Your task to perform on an android device: toggle priority inbox in the gmail app Image 0: 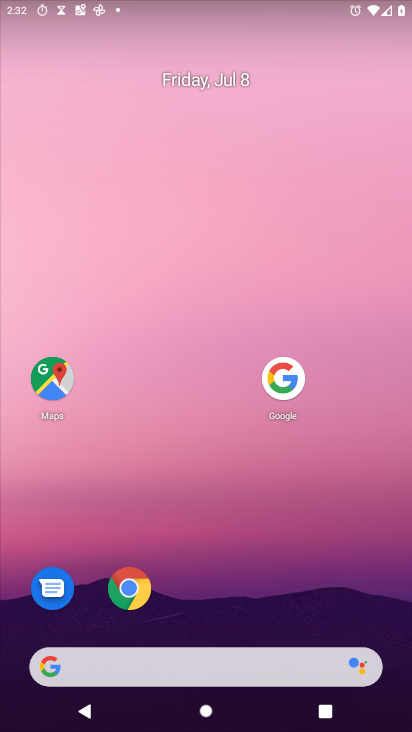
Step 0: drag from (209, 656) to (299, 139)
Your task to perform on an android device: toggle priority inbox in the gmail app Image 1: 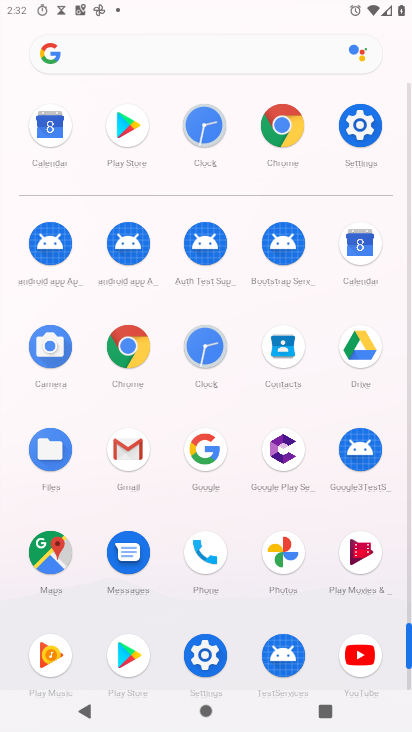
Step 1: click (125, 457)
Your task to perform on an android device: toggle priority inbox in the gmail app Image 2: 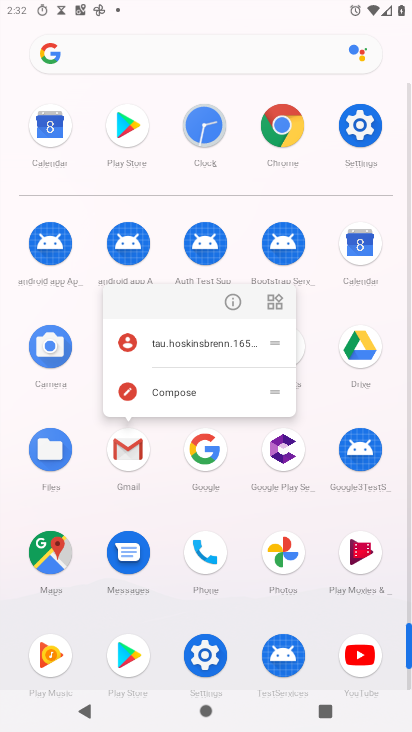
Step 2: click (116, 455)
Your task to perform on an android device: toggle priority inbox in the gmail app Image 3: 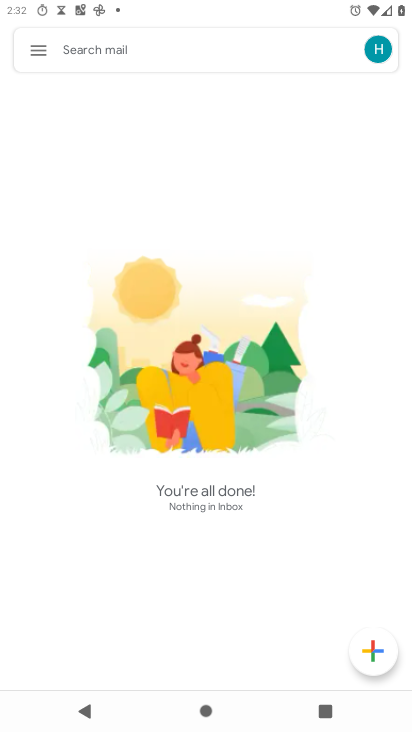
Step 3: click (40, 49)
Your task to perform on an android device: toggle priority inbox in the gmail app Image 4: 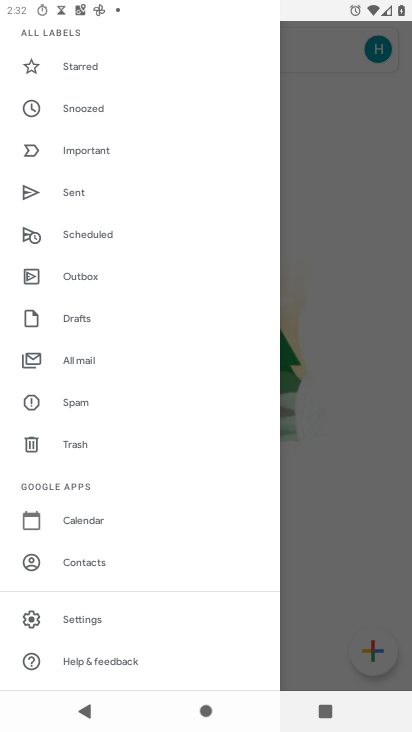
Step 4: click (92, 620)
Your task to perform on an android device: toggle priority inbox in the gmail app Image 5: 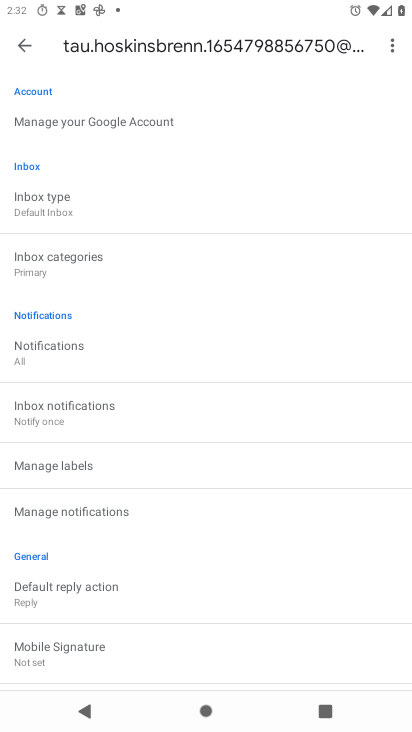
Step 5: click (47, 202)
Your task to perform on an android device: toggle priority inbox in the gmail app Image 6: 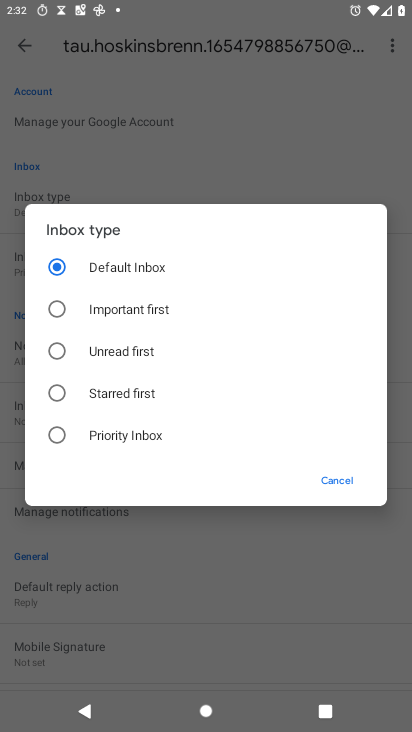
Step 6: click (57, 434)
Your task to perform on an android device: toggle priority inbox in the gmail app Image 7: 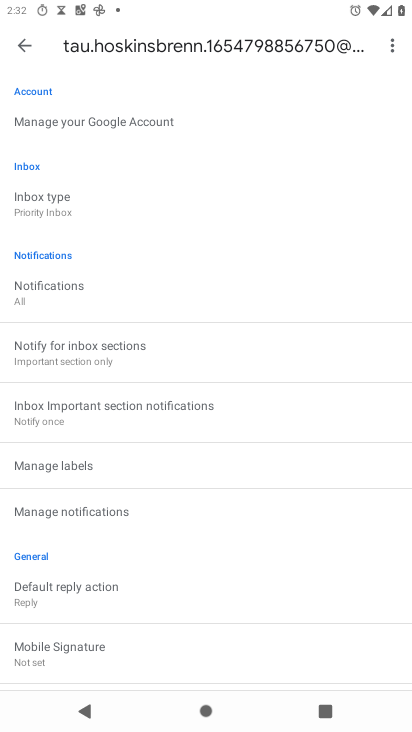
Step 7: task complete